Your task to perform on an android device: What's the weather today? Image 0: 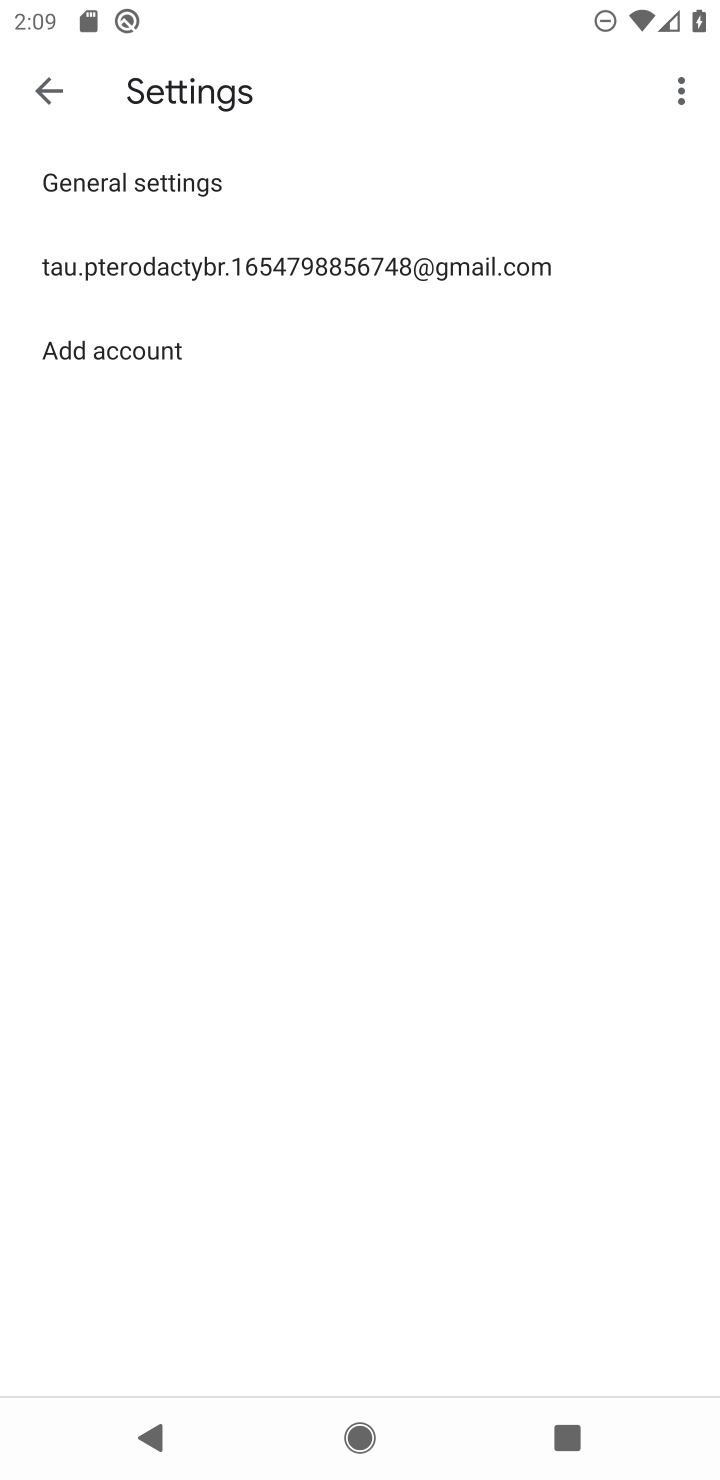
Step 0: press home button
Your task to perform on an android device: What's the weather today? Image 1: 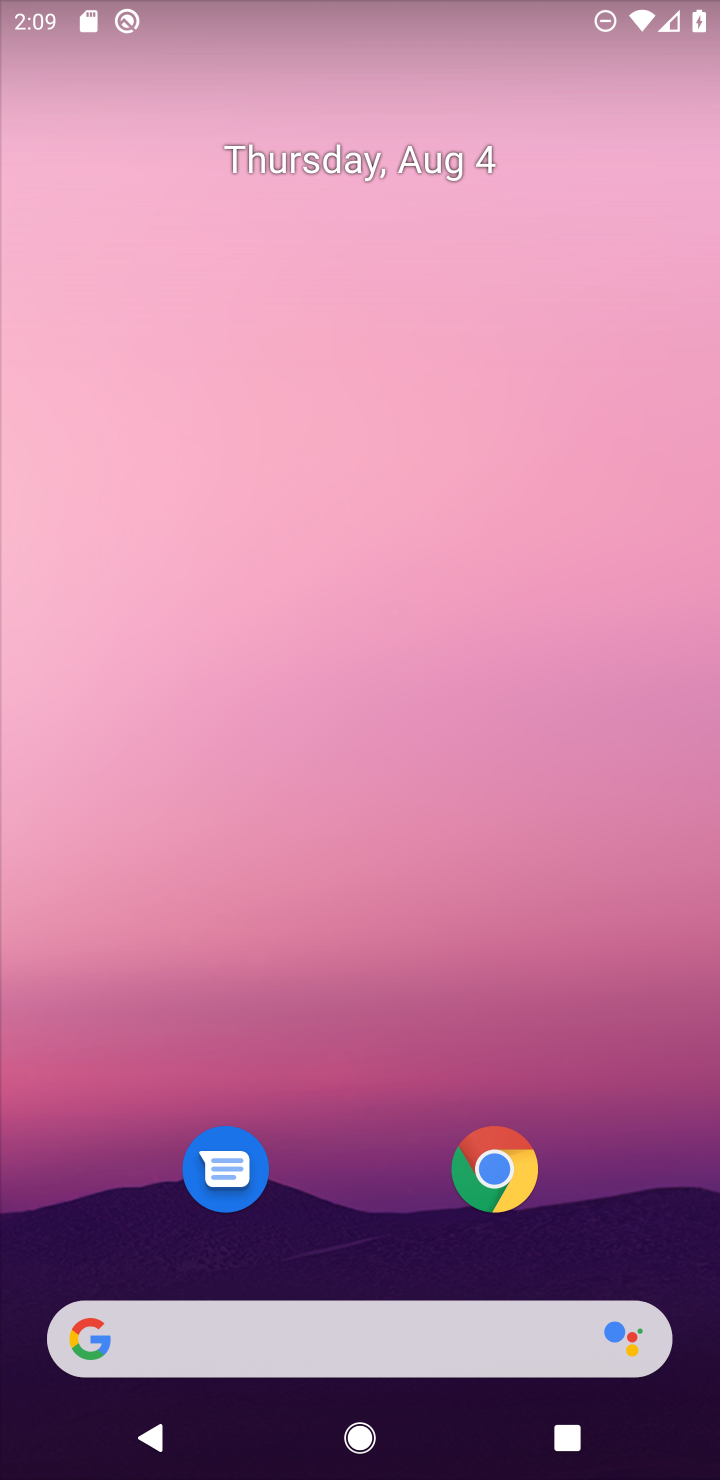
Step 1: click (171, 1342)
Your task to perform on an android device: What's the weather today? Image 2: 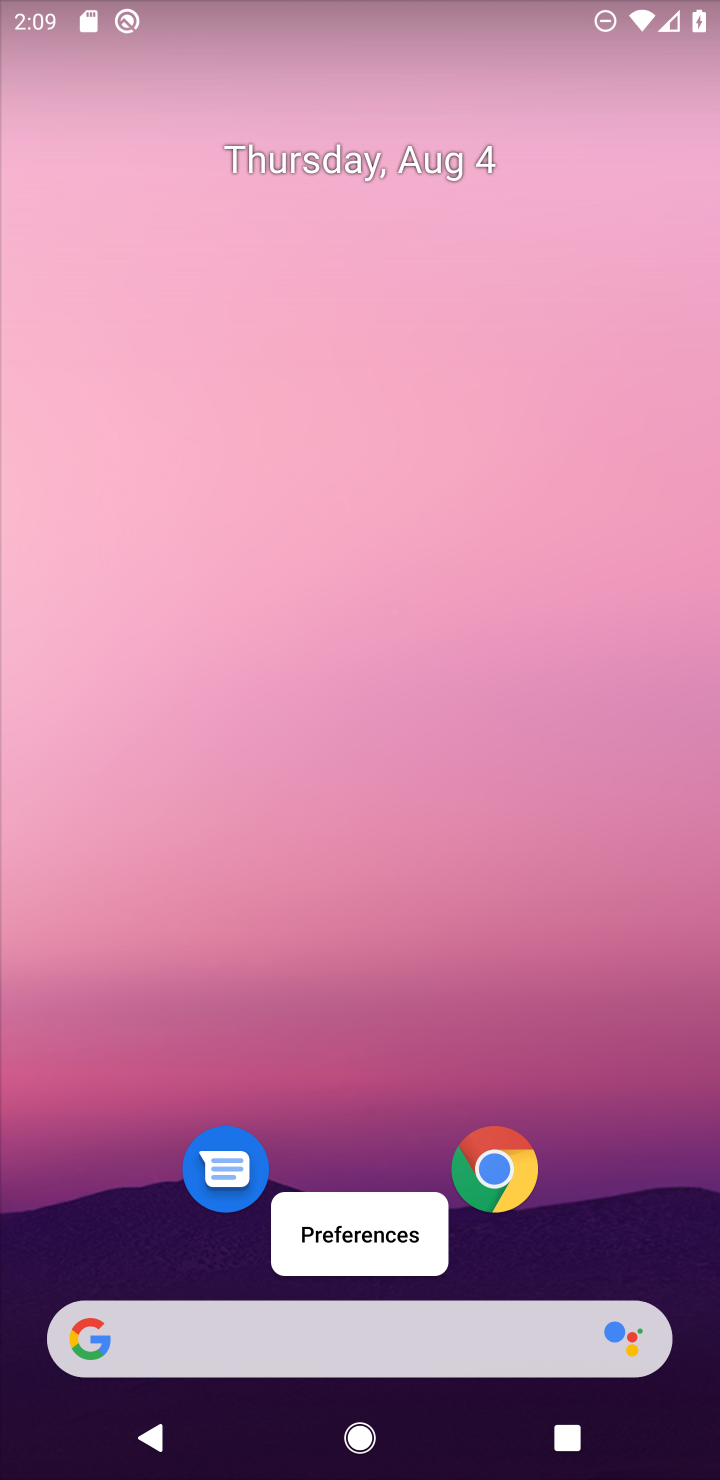
Step 2: click (171, 1342)
Your task to perform on an android device: What's the weather today? Image 3: 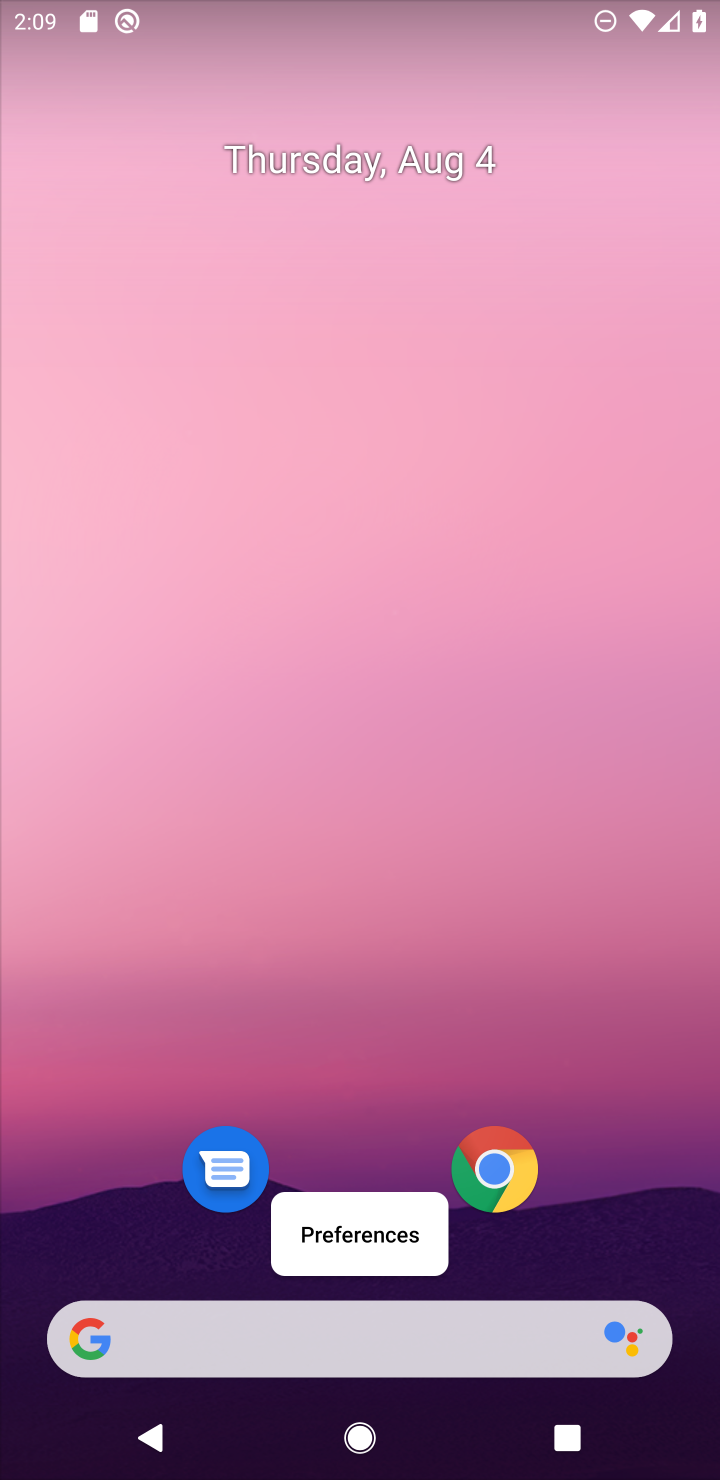
Step 3: click (228, 1340)
Your task to perform on an android device: What's the weather today? Image 4: 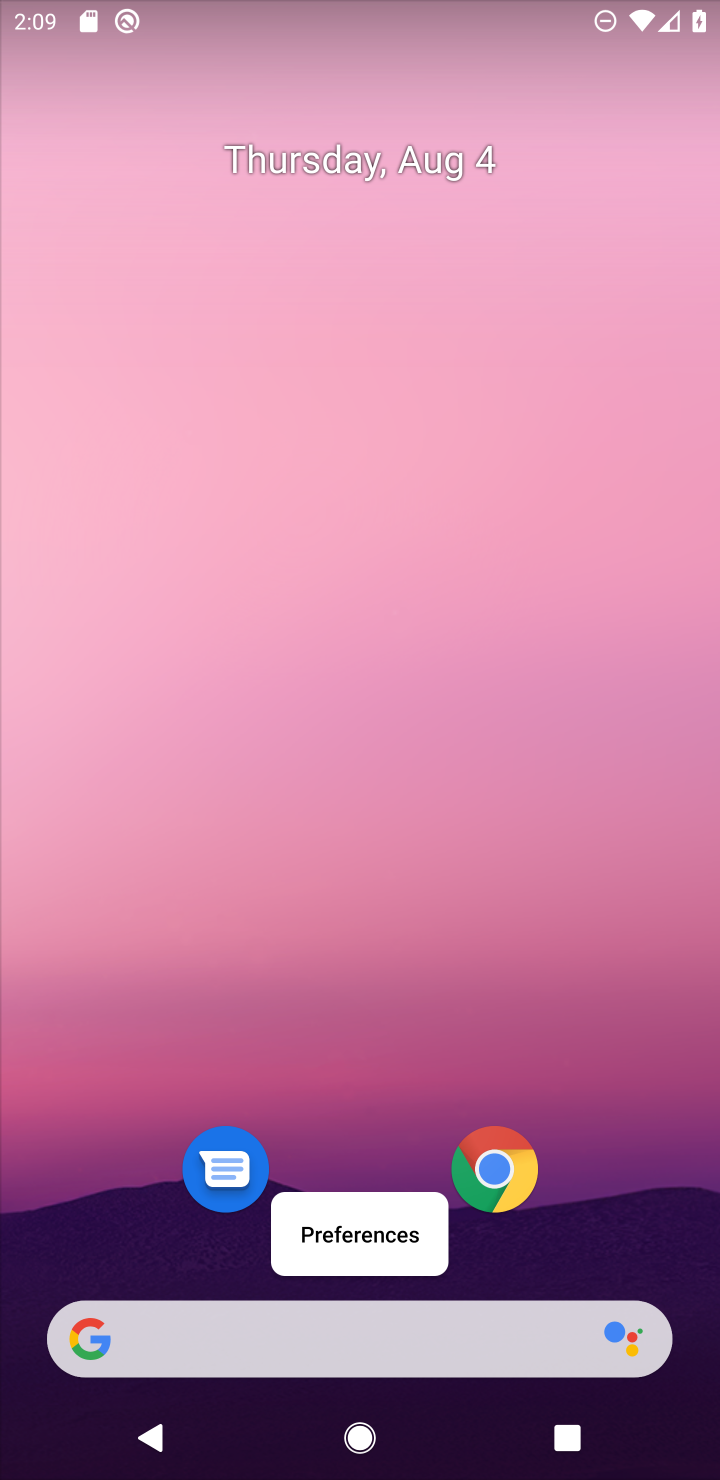
Step 4: click (230, 1340)
Your task to perform on an android device: What's the weather today? Image 5: 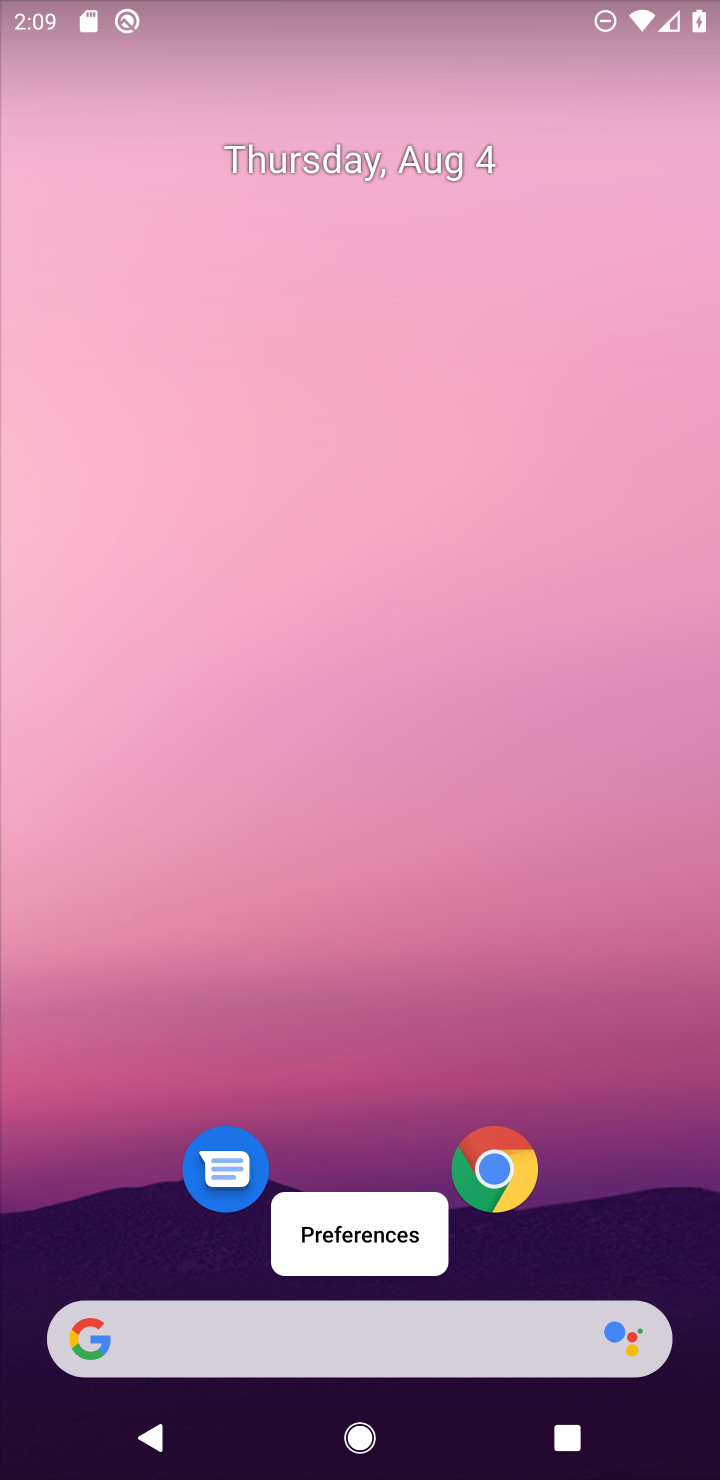
Step 5: click (339, 1348)
Your task to perform on an android device: What's the weather today? Image 6: 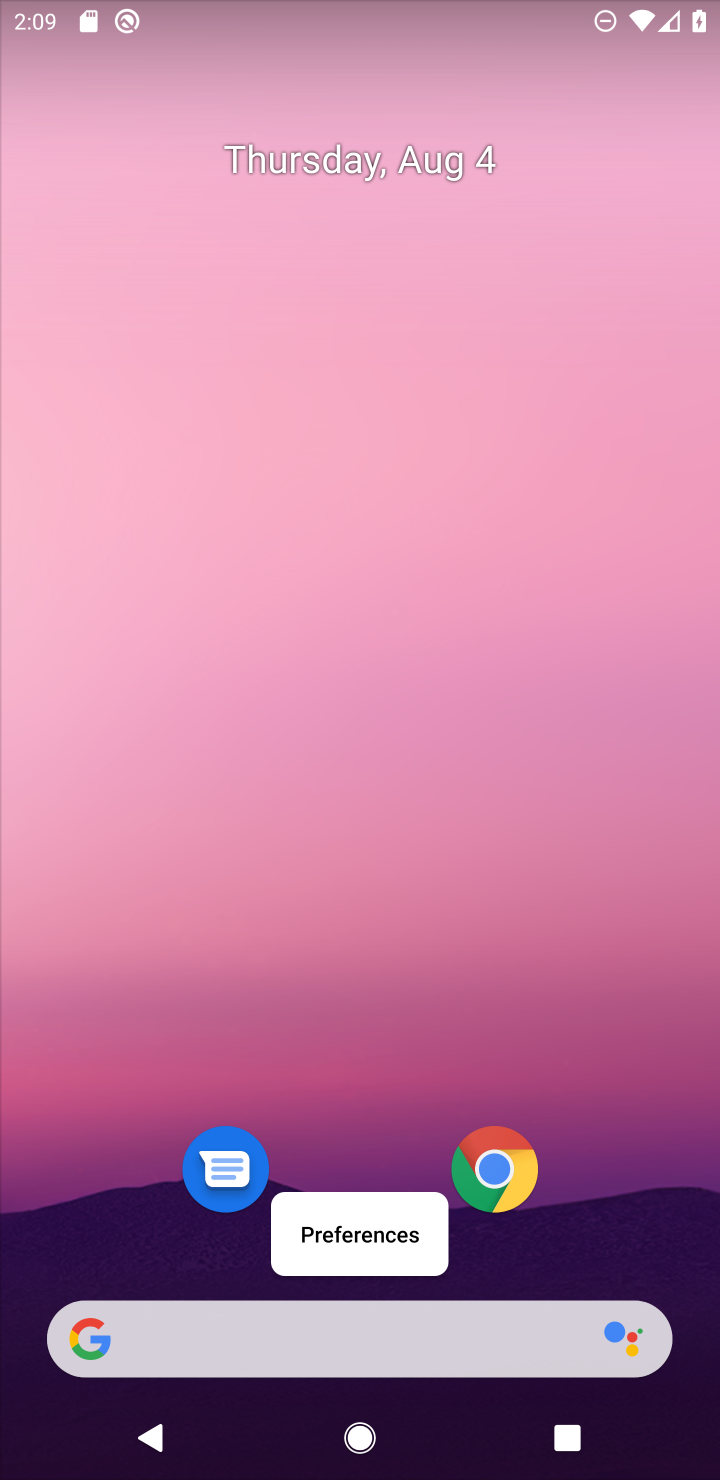
Step 6: click (339, 1348)
Your task to perform on an android device: What's the weather today? Image 7: 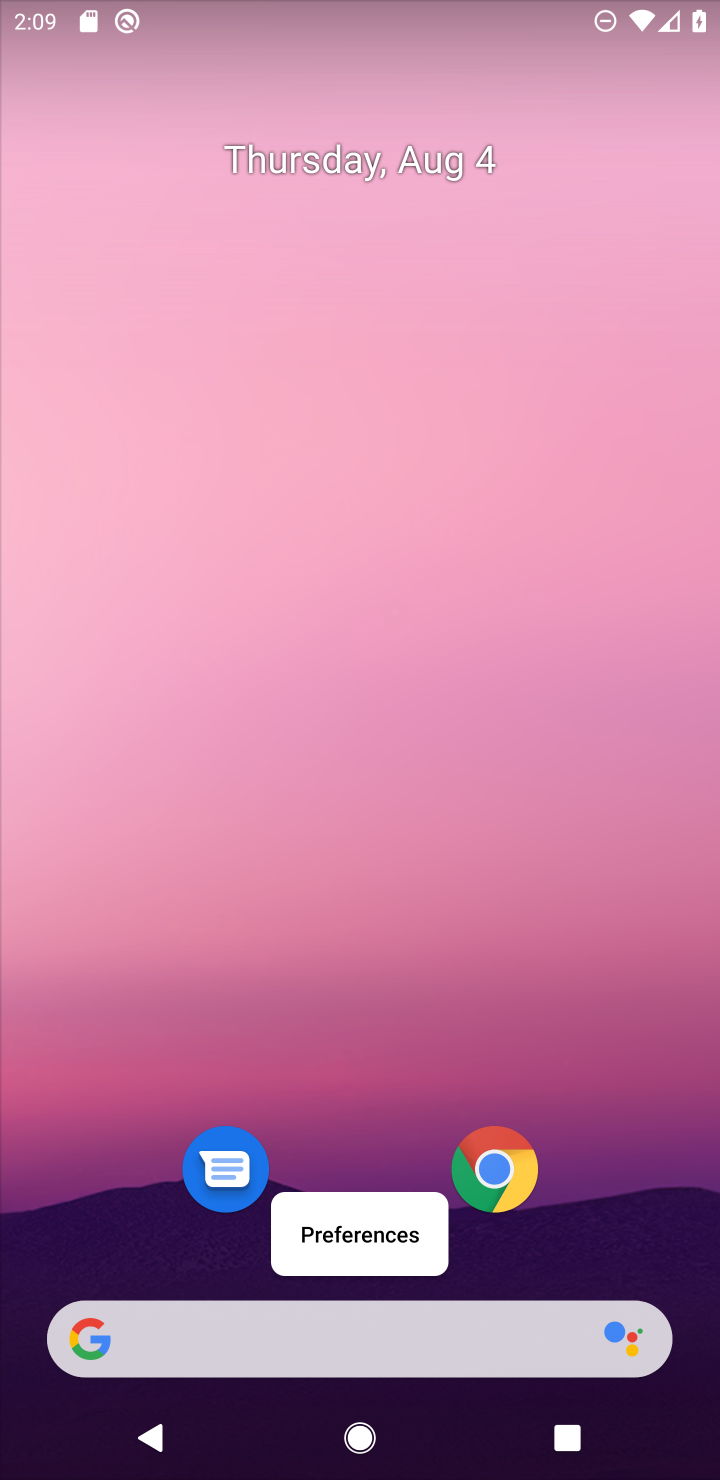
Step 7: click (462, 1346)
Your task to perform on an android device: What's the weather today? Image 8: 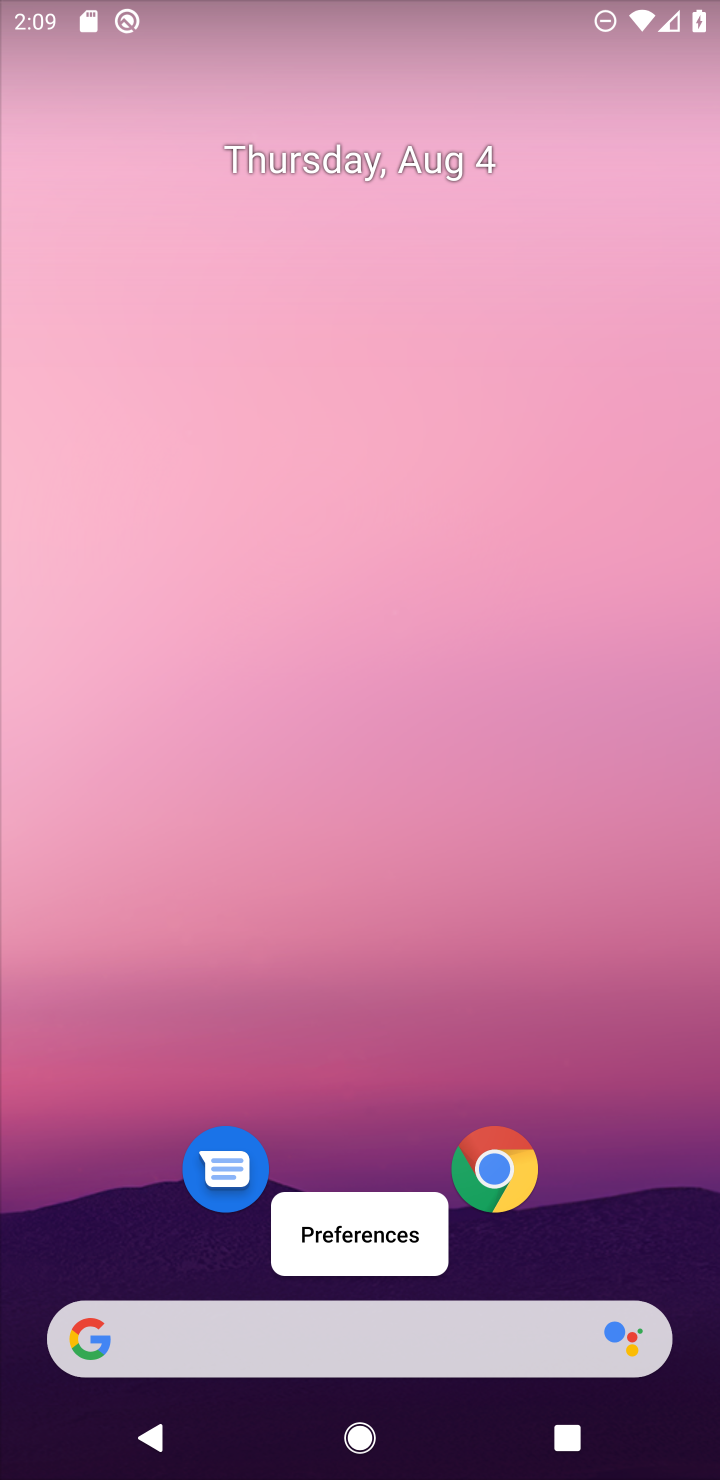
Step 8: click (171, 1334)
Your task to perform on an android device: What's the weather today? Image 9: 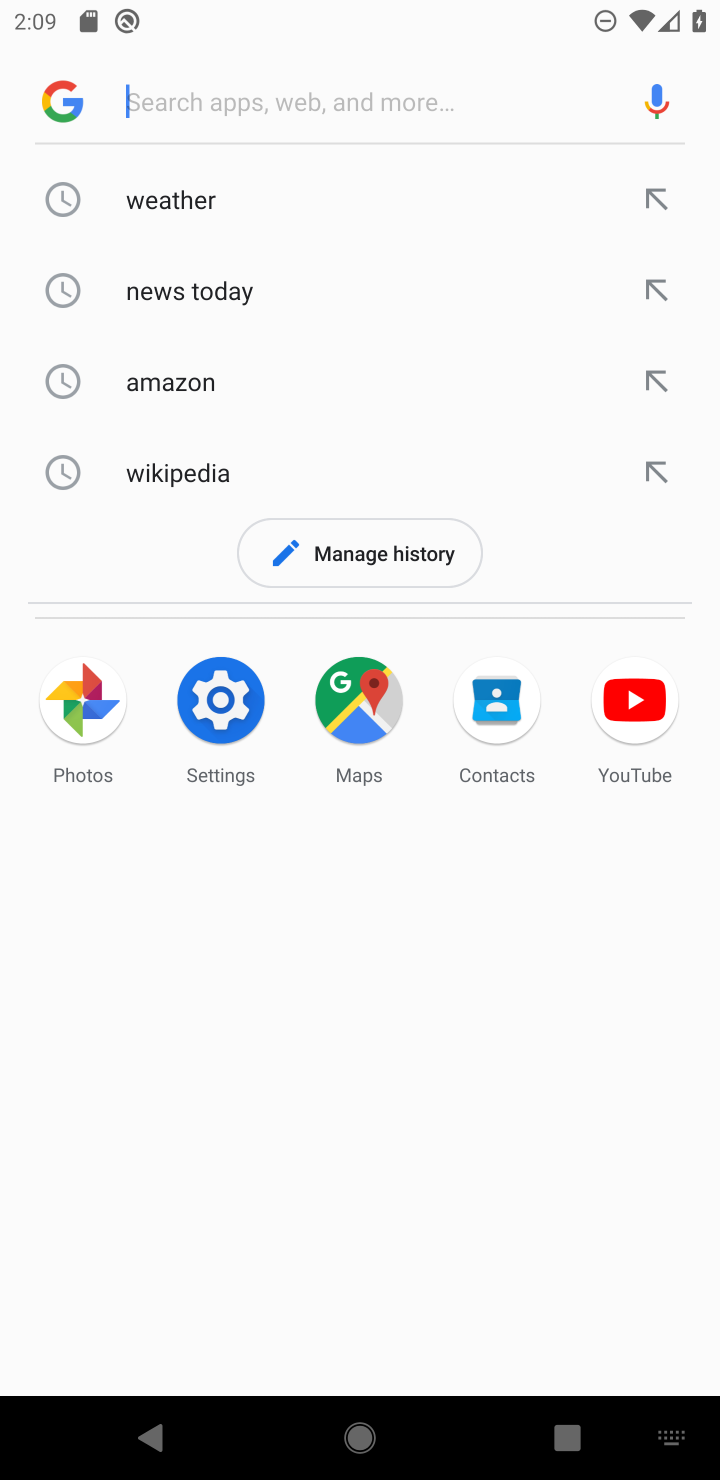
Step 9: click (170, 212)
Your task to perform on an android device: What's the weather today? Image 10: 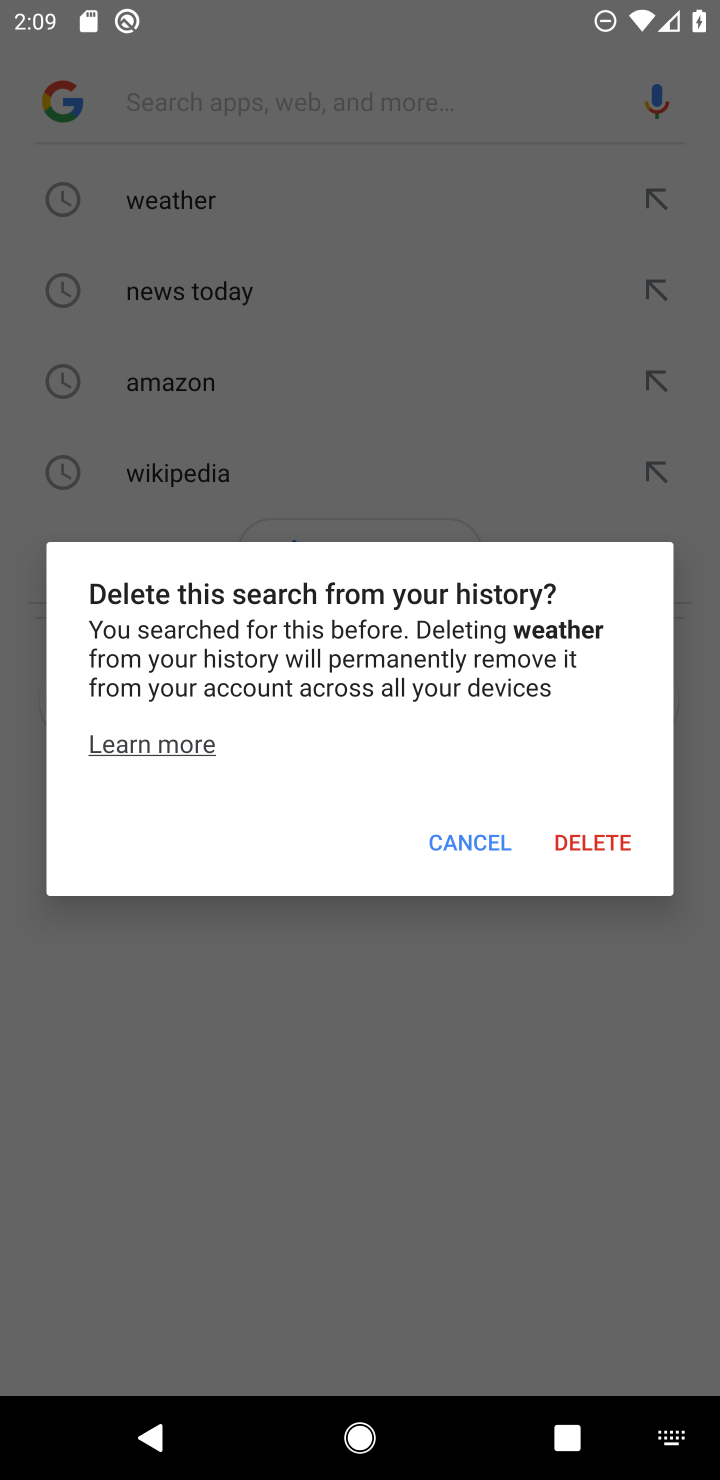
Step 10: click (451, 854)
Your task to perform on an android device: What's the weather today? Image 11: 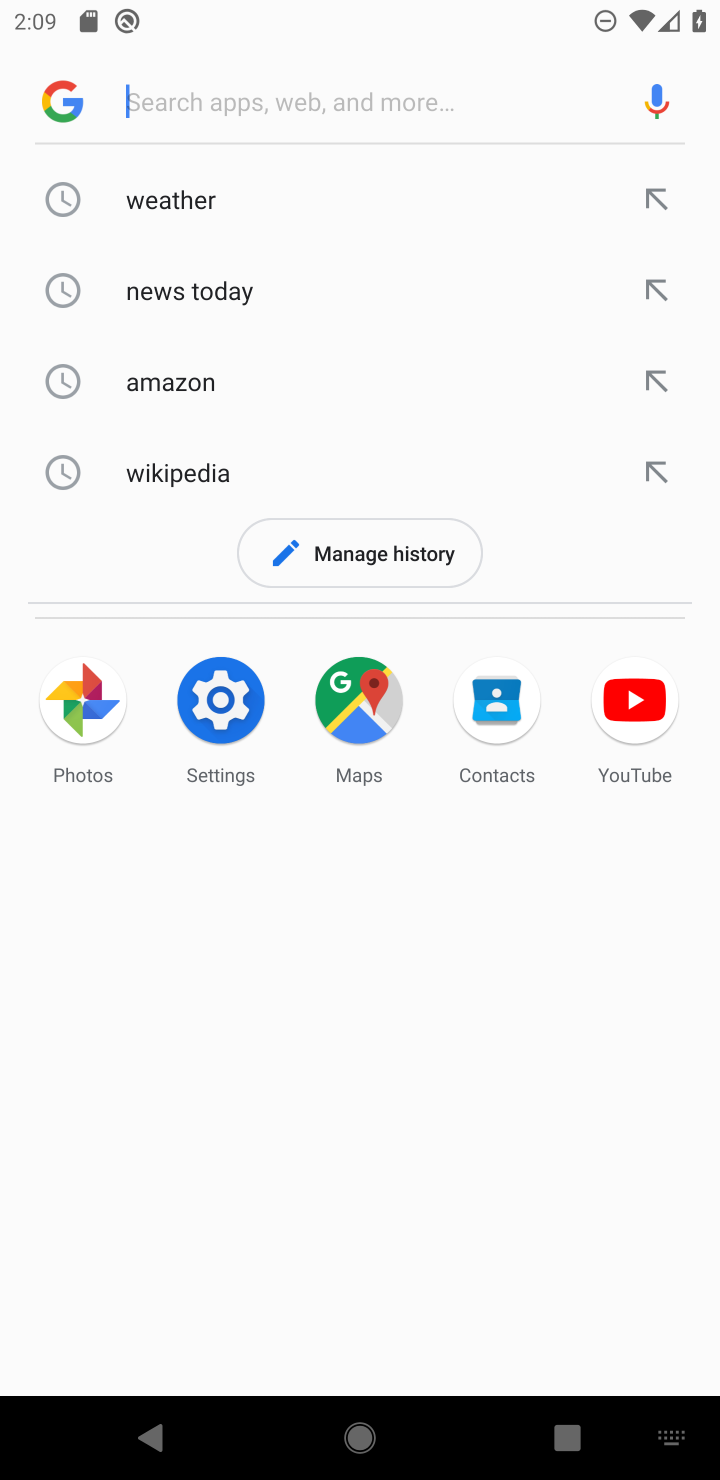
Step 11: click (156, 211)
Your task to perform on an android device: What's the weather today? Image 12: 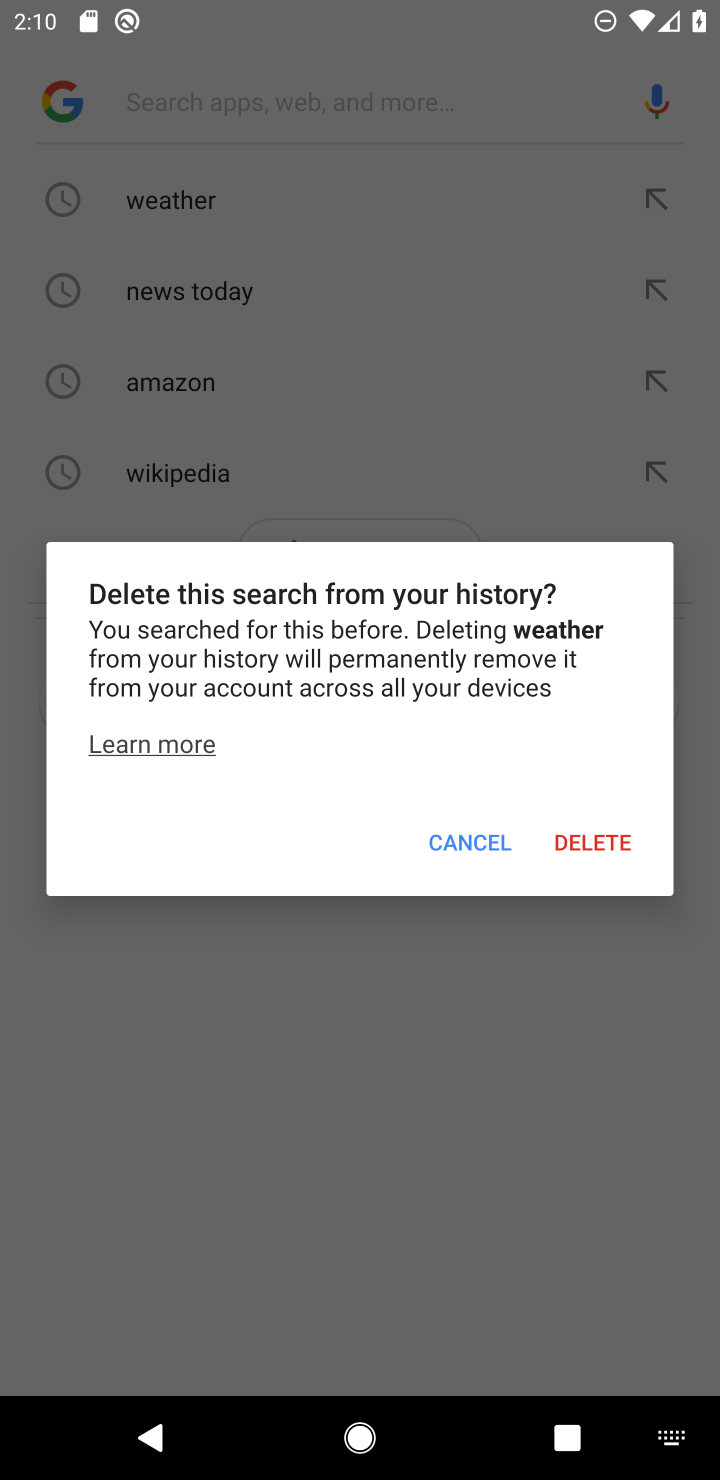
Step 12: click (466, 842)
Your task to perform on an android device: What's the weather today? Image 13: 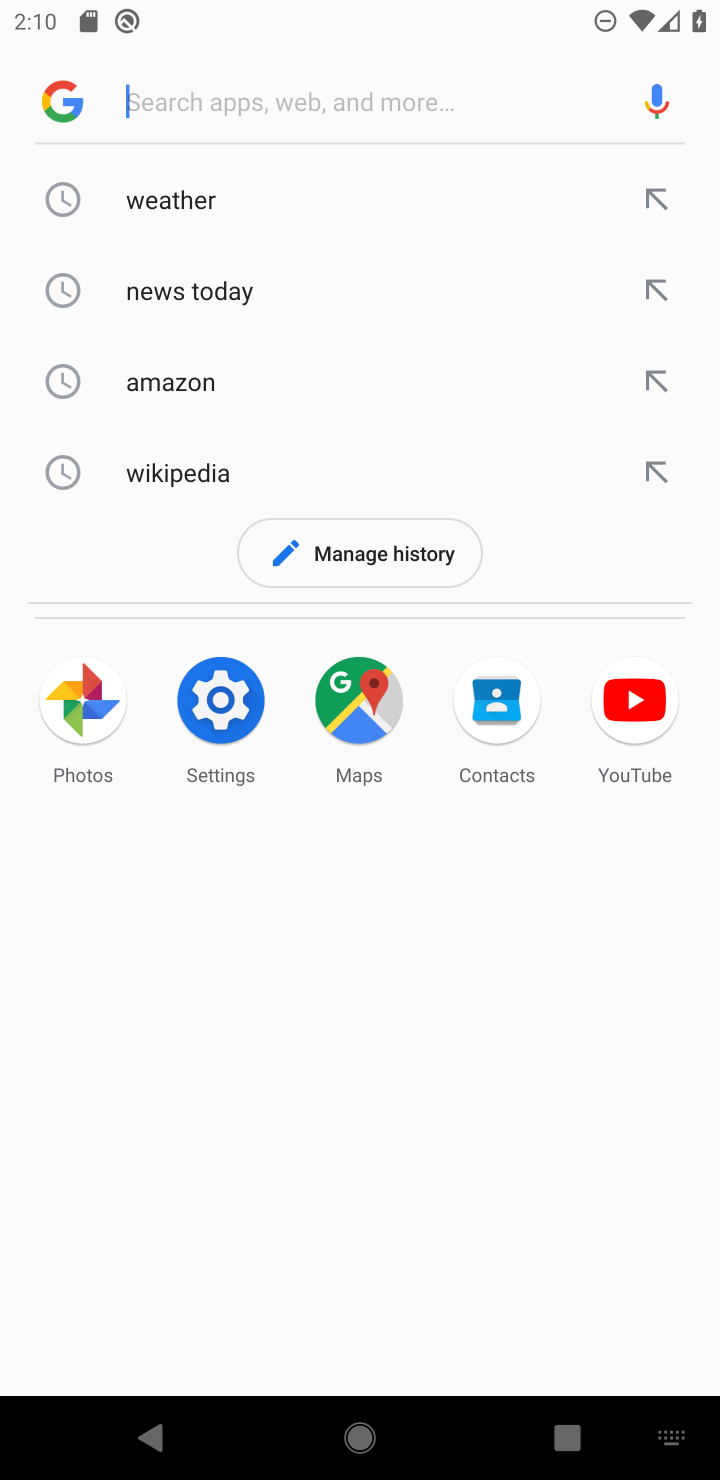
Step 13: click (168, 201)
Your task to perform on an android device: What's the weather today? Image 14: 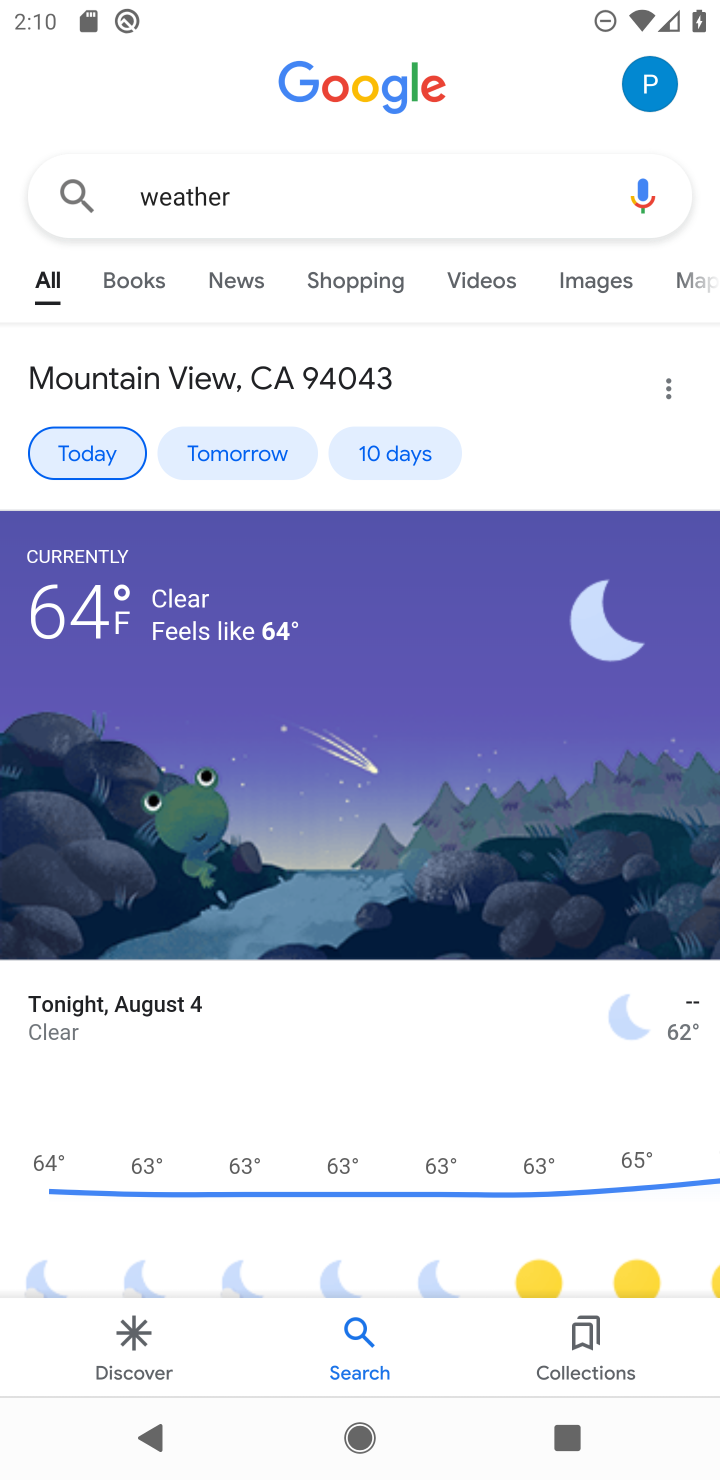
Step 14: click (82, 449)
Your task to perform on an android device: What's the weather today? Image 15: 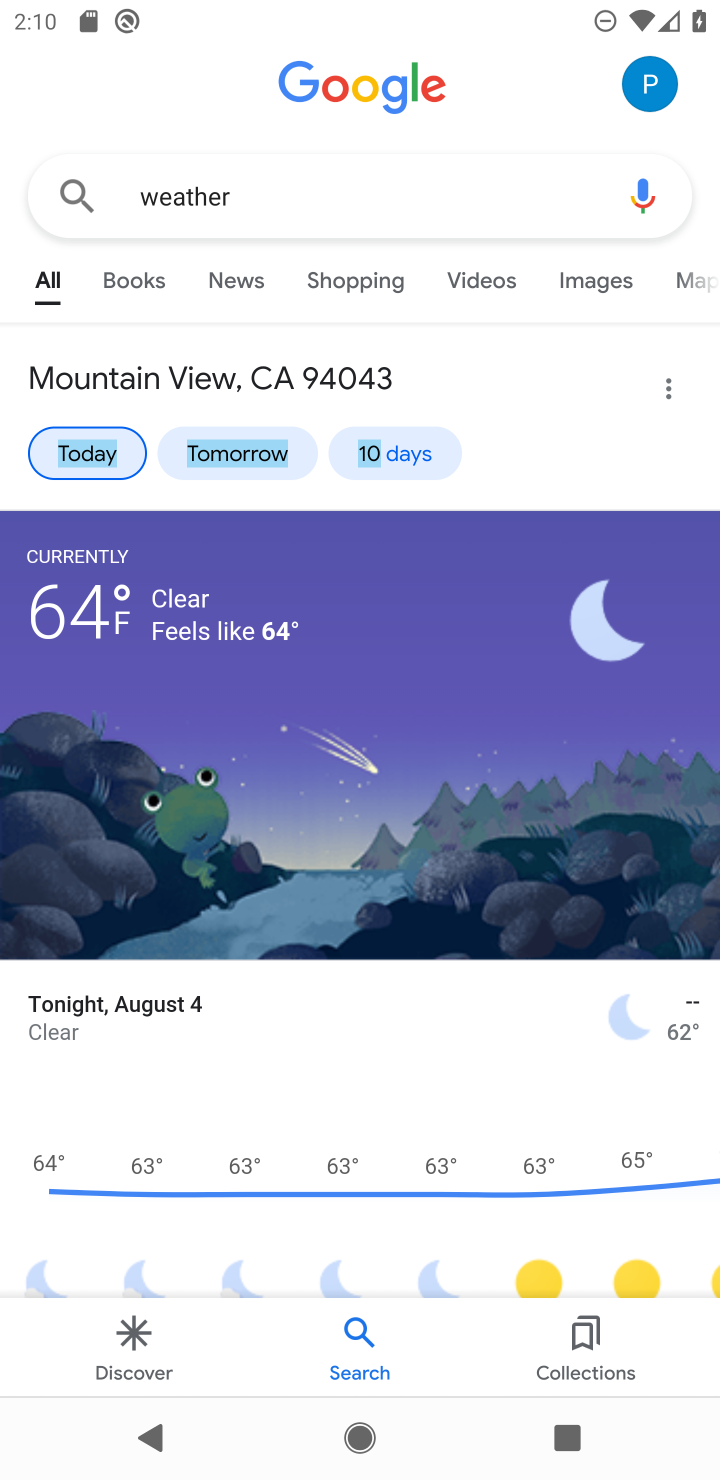
Step 15: task complete